Your task to perform on an android device: star an email in the gmail app Image 0: 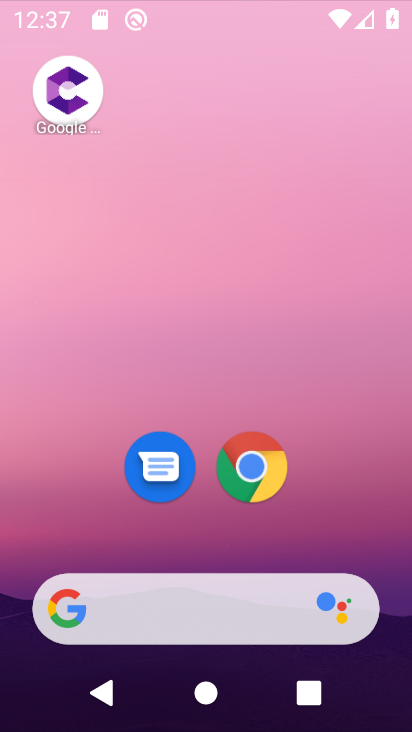
Step 0: click (196, 445)
Your task to perform on an android device: star an email in the gmail app Image 1: 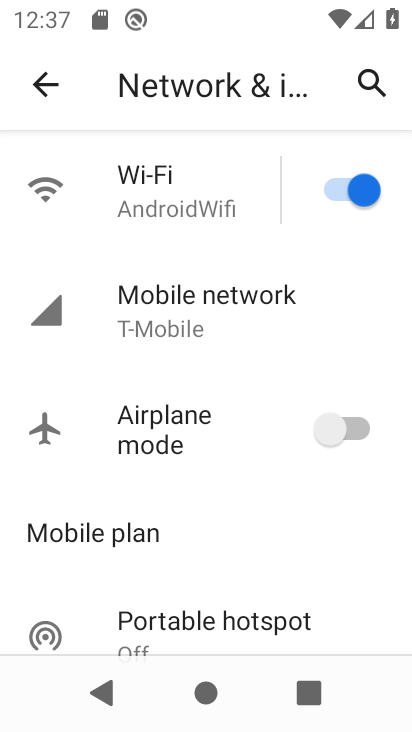
Step 1: drag from (224, 559) to (272, 291)
Your task to perform on an android device: star an email in the gmail app Image 2: 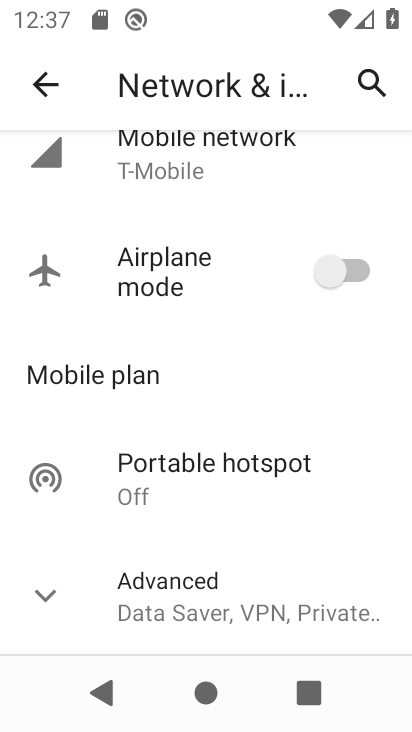
Step 2: drag from (248, 548) to (309, 62)
Your task to perform on an android device: star an email in the gmail app Image 3: 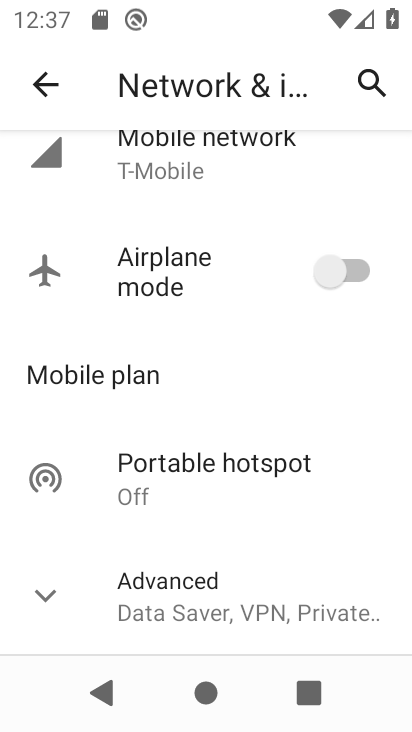
Step 3: press home button
Your task to perform on an android device: star an email in the gmail app Image 4: 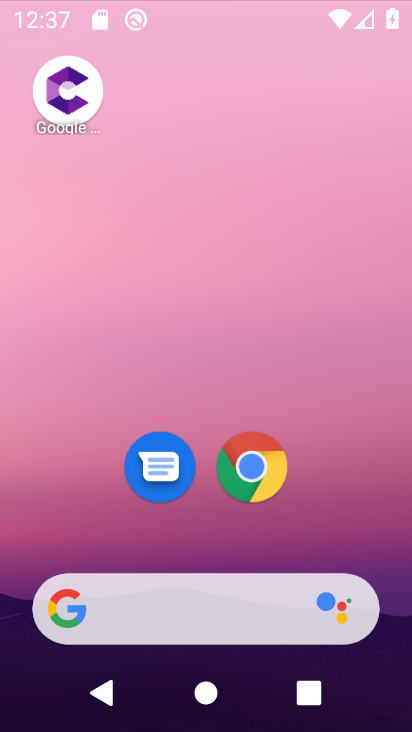
Step 4: drag from (172, 615) to (302, 6)
Your task to perform on an android device: star an email in the gmail app Image 5: 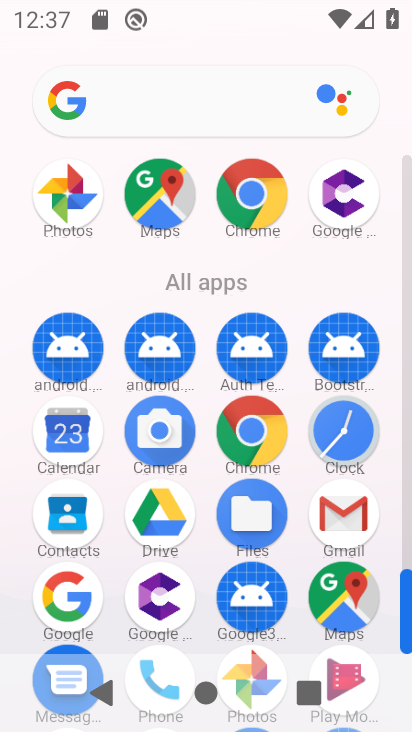
Step 5: click (351, 515)
Your task to perform on an android device: star an email in the gmail app Image 6: 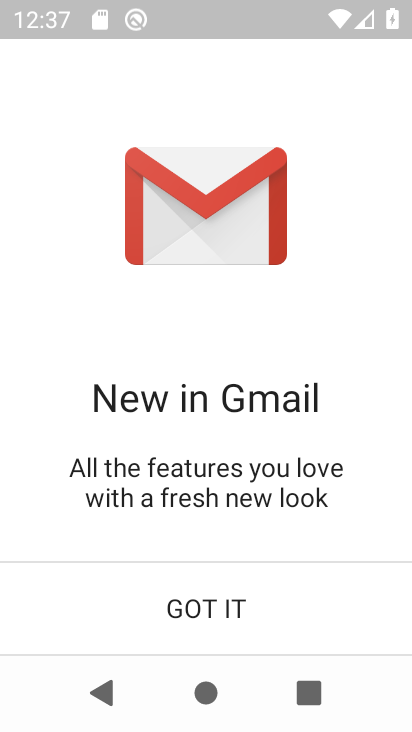
Step 6: click (205, 608)
Your task to perform on an android device: star an email in the gmail app Image 7: 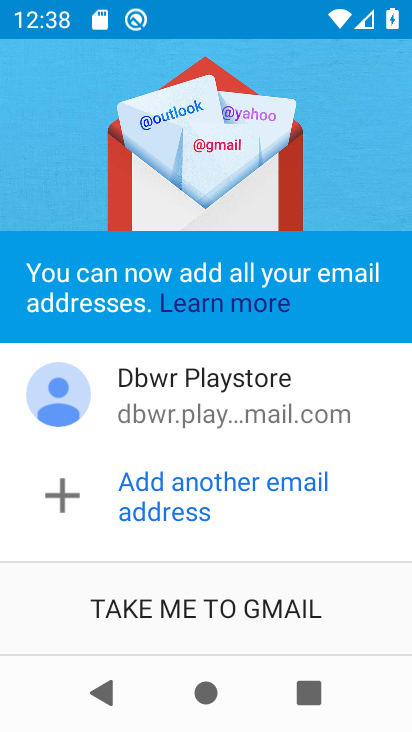
Step 7: click (168, 607)
Your task to perform on an android device: star an email in the gmail app Image 8: 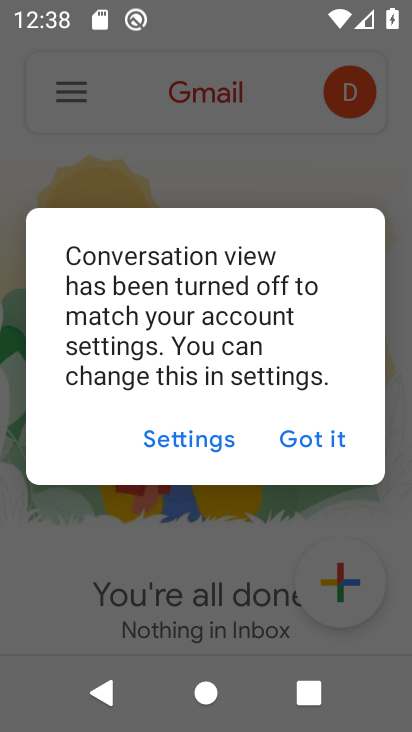
Step 8: click (311, 428)
Your task to perform on an android device: star an email in the gmail app Image 9: 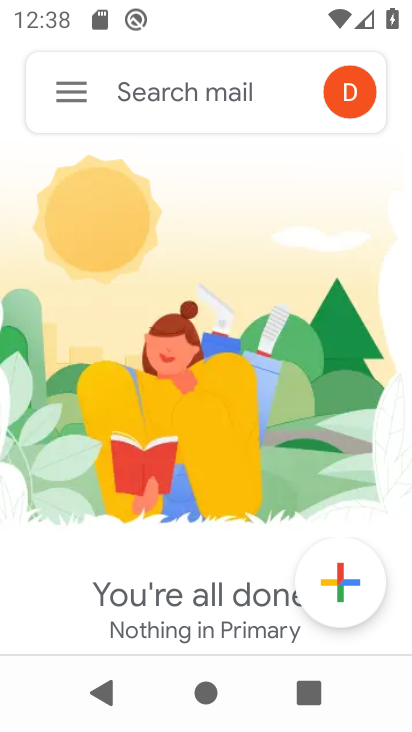
Step 9: click (83, 87)
Your task to perform on an android device: star an email in the gmail app Image 10: 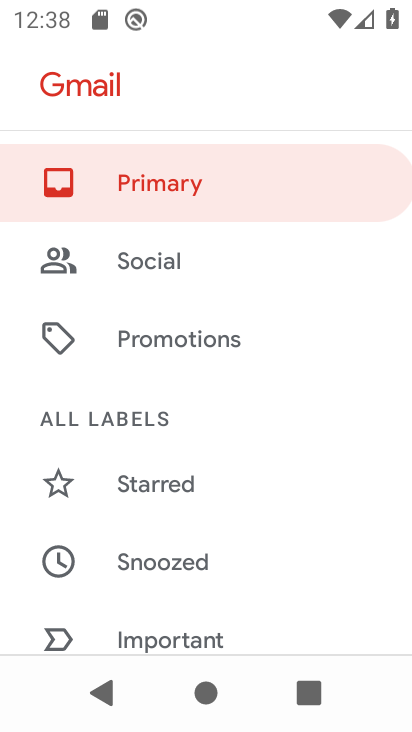
Step 10: task complete